Your task to perform on an android device: Find coffee shops on Maps Image 0: 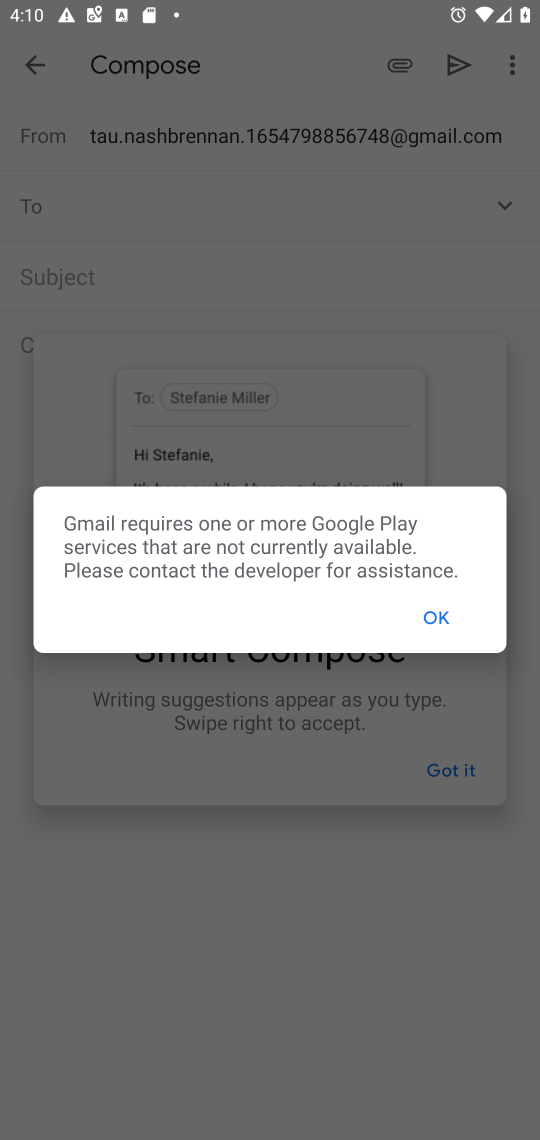
Step 0: press home button
Your task to perform on an android device: Find coffee shops on Maps Image 1: 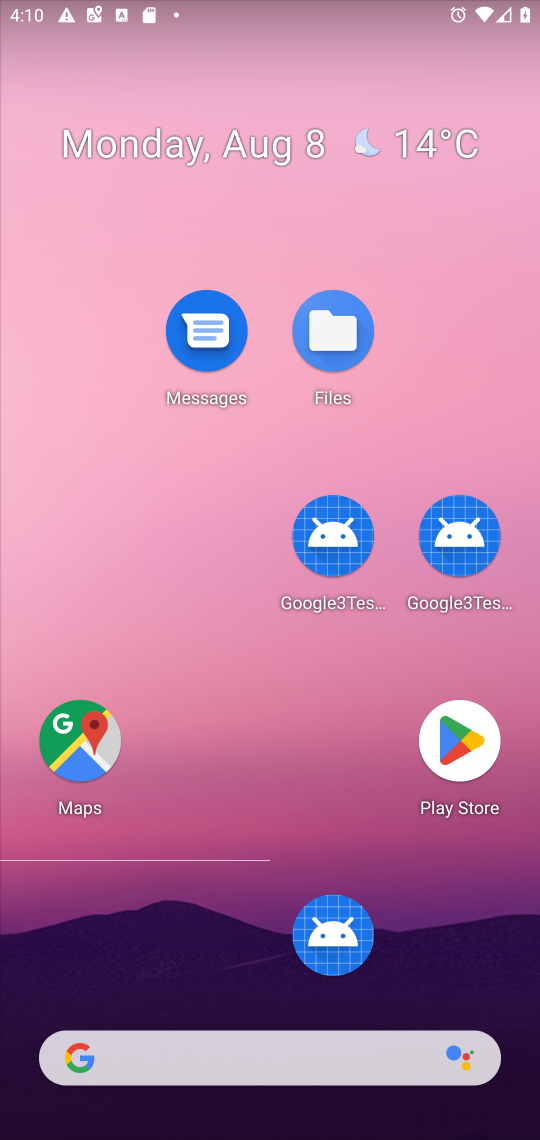
Step 1: drag from (251, 1056) to (405, 82)
Your task to perform on an android device: Find coffee shops on Maps Image 2: 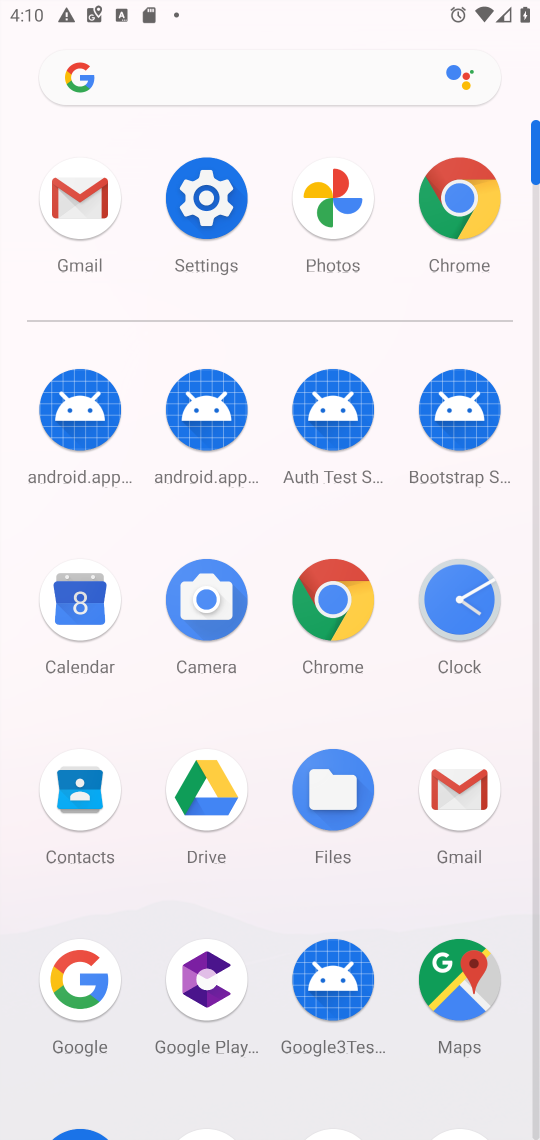
Step 2: click (474, 986)
Your task to perform on an android device: Find coffee shops on Maps Image 3: 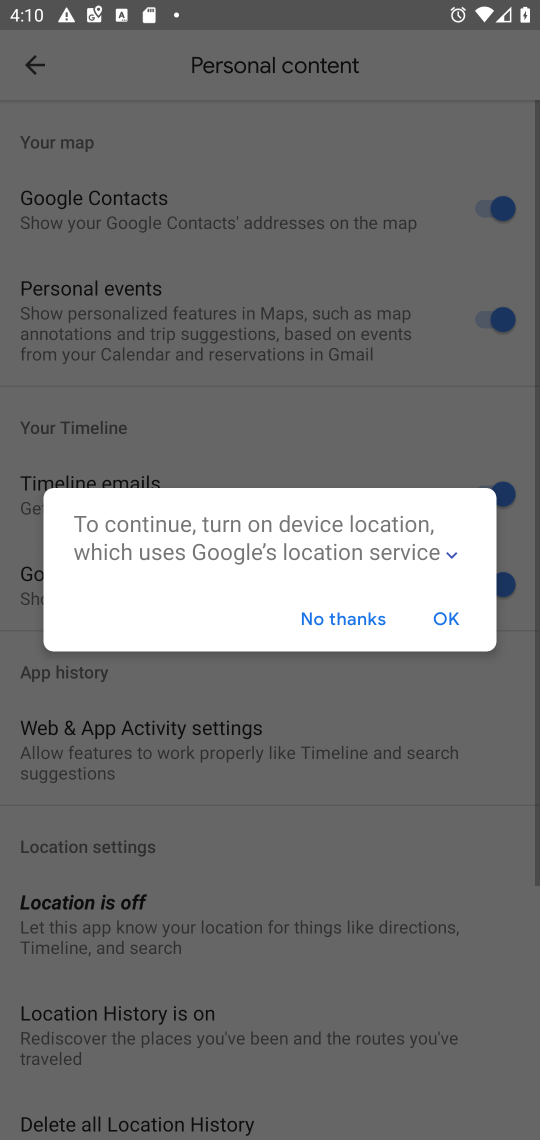
Step 3: press back button
Your task to perform on an android device: Find coffee shops on Maps Image 4: 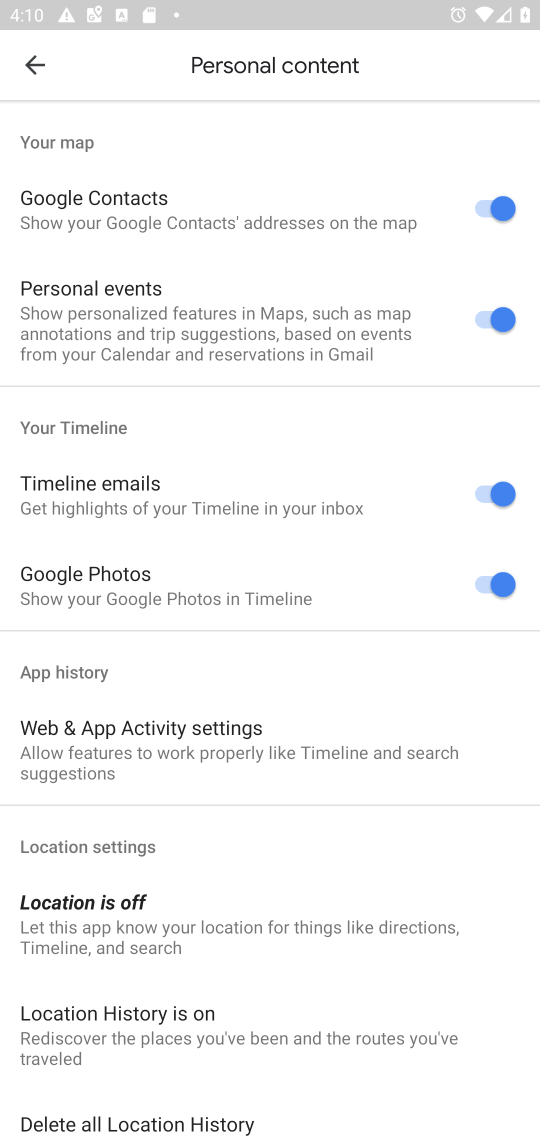
Step 4: press back button
Your task to perform on an android device: Find coffee shops on Maps Image 5: 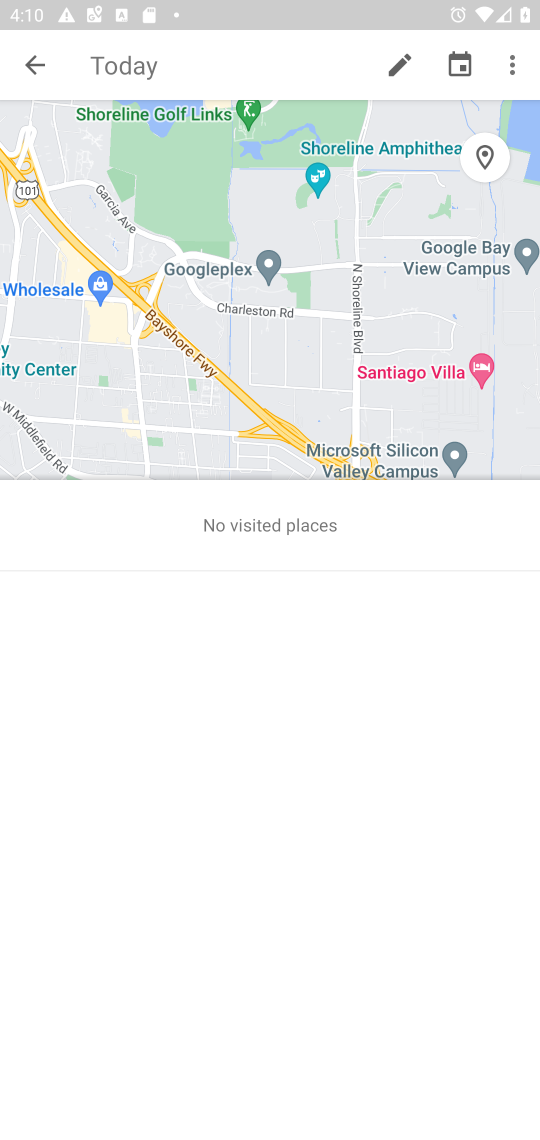
Step 5: press back button
Your task to perform on an android device: Find coffee shops on Maps Image 6: 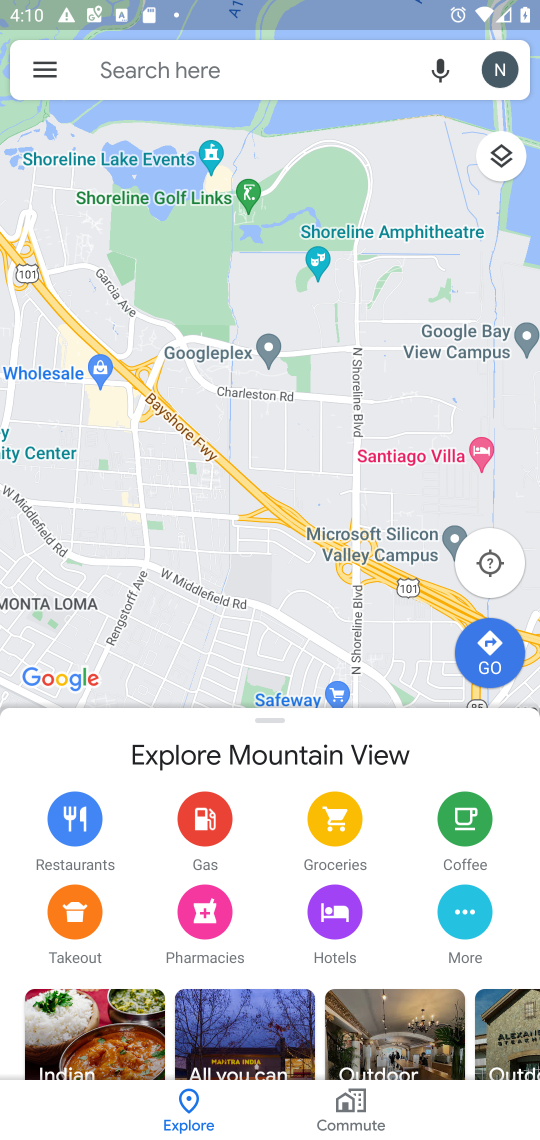
Step 6: click (289, 56)
Your task to perform on an android device: Find coffee shops on Maps Image 7: 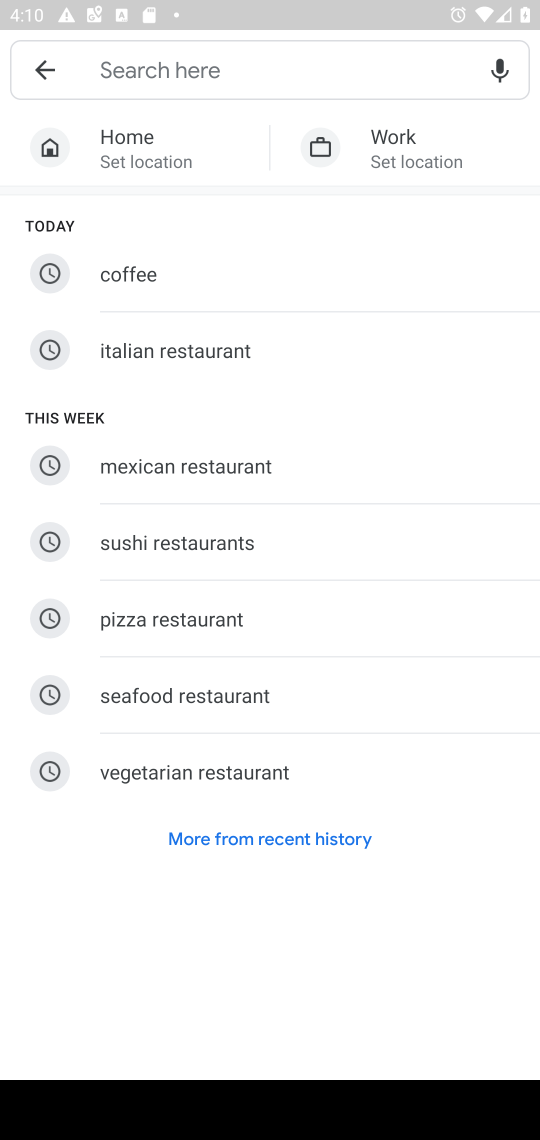
Step 7: type "coffee shops"
Your task to perform on an android device: Find coffee shops on Maps Image 8: 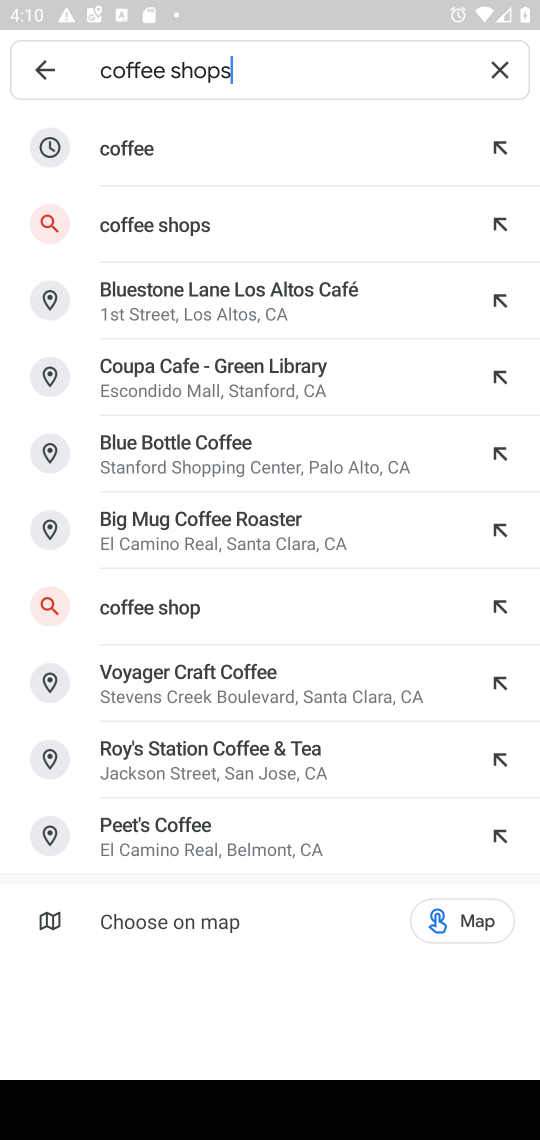
Step 8: click (192, 217)
Your task to perform on an android device: Find coffee shops on Maps Image 9: 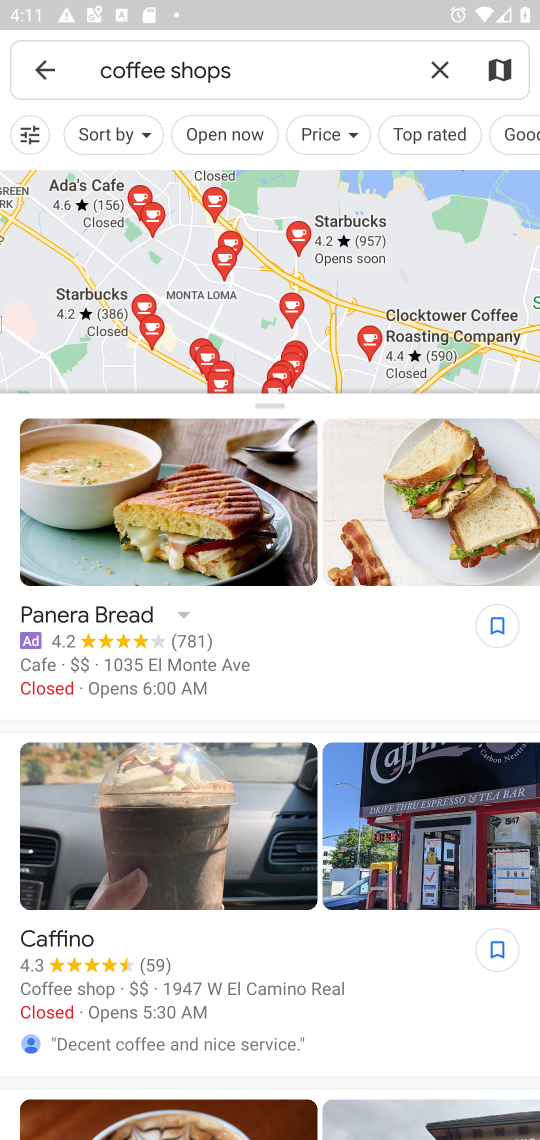
Step 9: task complete